Your task to perform on an android device: open chrome and create a bookmark for the current page Image 0: 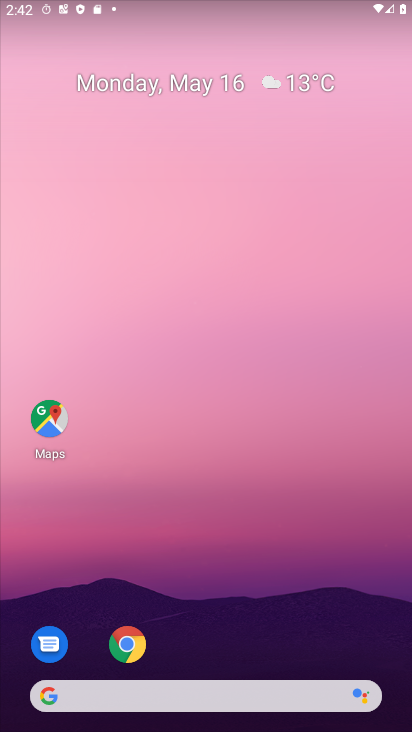
Step 0: drag from (267, 596) to (267, 208)
Your task to perform on an android device: open chrome and create a bookmark for the current page Image 1: 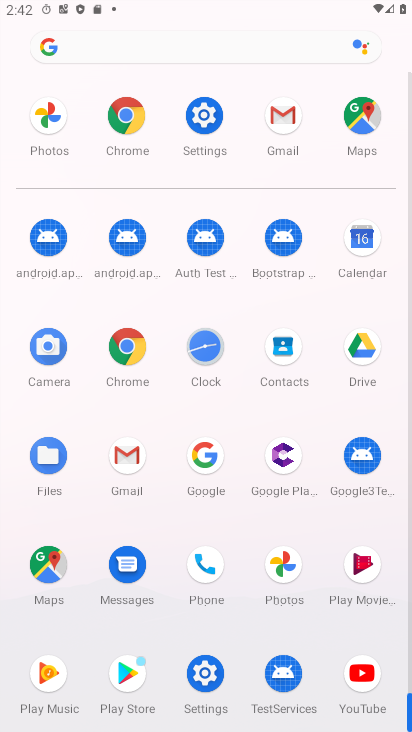
Step 1: click (134, 136)
Your task to perform on an android device: open chrome and create a bookmark for the current page Image 2: 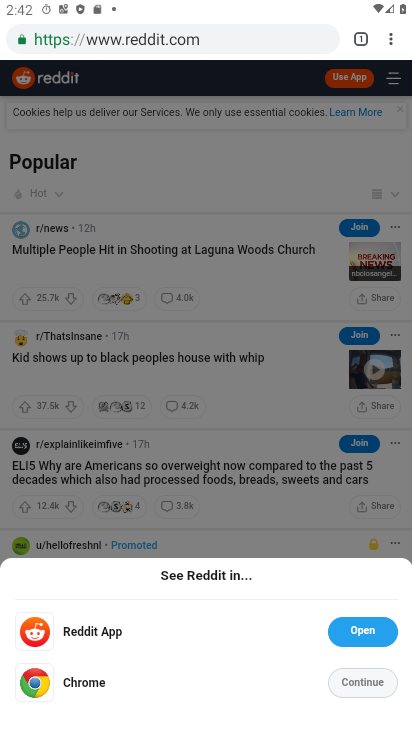
Step 2: drag from (119, 41) to (118, 239)
Your task to perform on an android device: open chrome and create a bookmark for the current page Image 3: 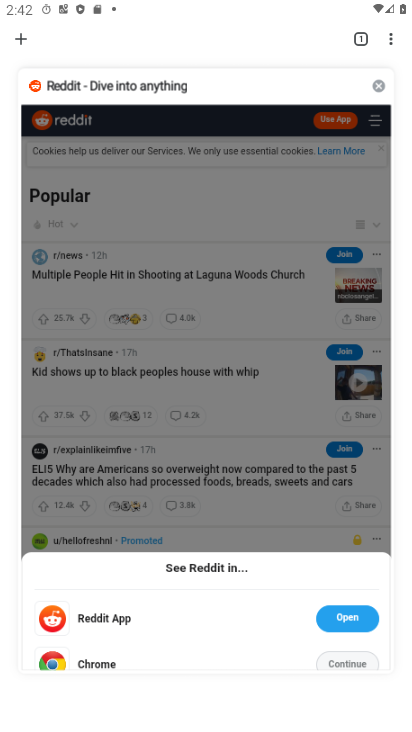
Step 3: click (14, 36)
Your task to perform on an android device: open chrome and create a bookmark for the current page Image 4: 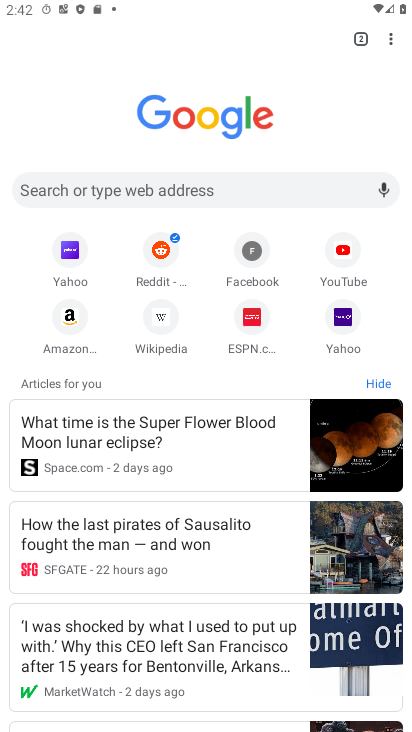
Step 4: click (14, 36)
Your task to perform on an android device: open chrome and create a bookmark for the current page Image 5: 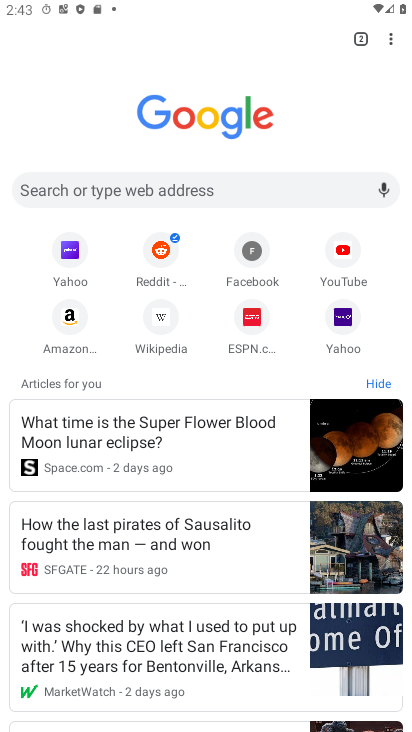
Step 5: click (119, 196)
Your task to perform on an android device: open chrome and create a bookmark for the current page Image 6: 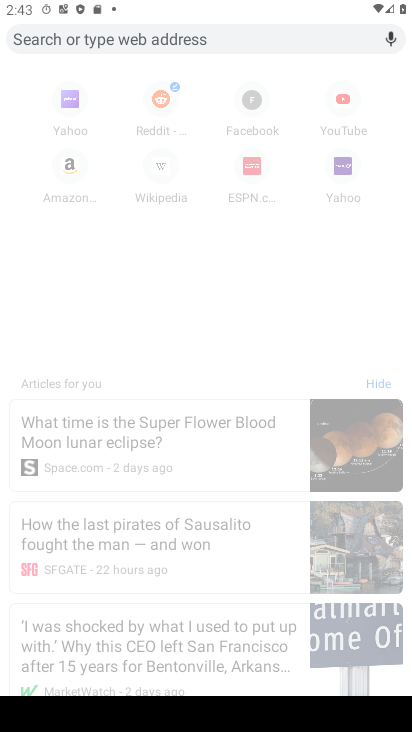
Step 6: type "yuyu"
Your task to perform on an android device: open chrome and create a bookmark for the current page Image 7: 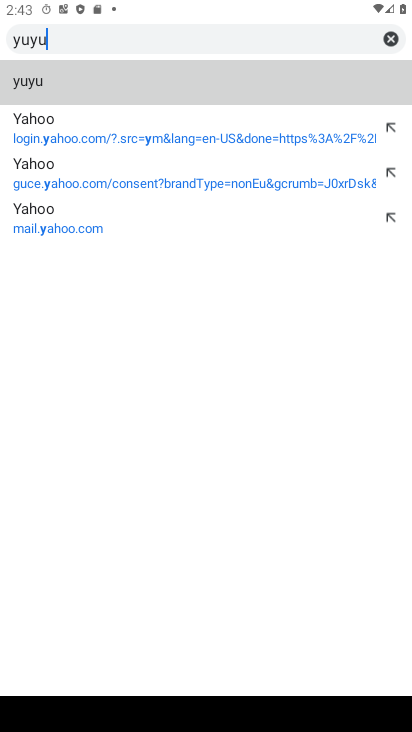
Step 7: type ""
Your task to perform on an android device: open chrome and create a bookmark for the current page Image 8: 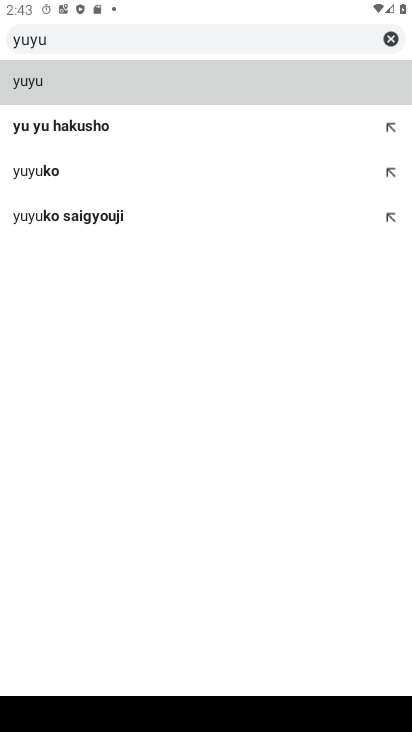
Step 8: click (109, 177)
Your task to perform on an android device: open chrome and create a bookmark for the current page Image 9: 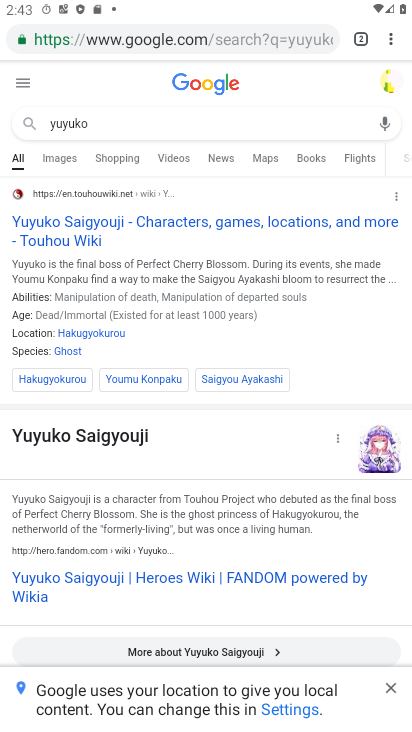
Step 9: click (192, 230)
Your task to perform on an android device: open chrome and create a bookmark for the current page Image 10: 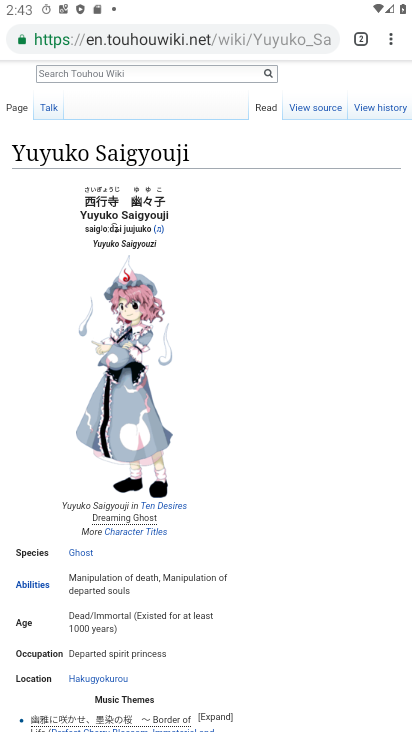
Step 10: click (390, 41)
Your task to perform on an android device: open chrome and create a bookmark for the current page Image 11: 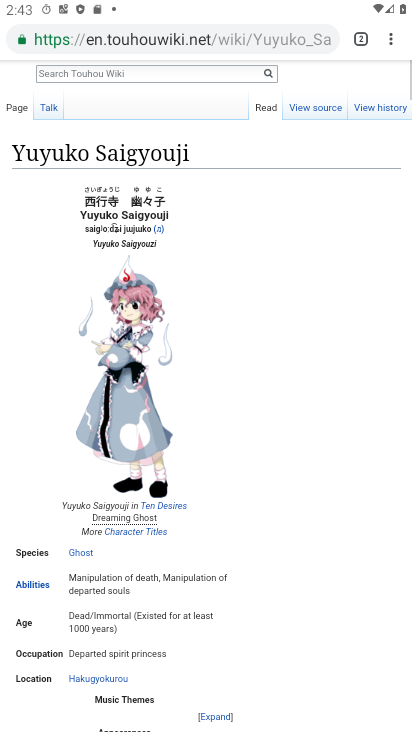
Step 11: click (394, 41)
Your task to perform on an android device: open chrome and create a bookmark for the current page Image 12: 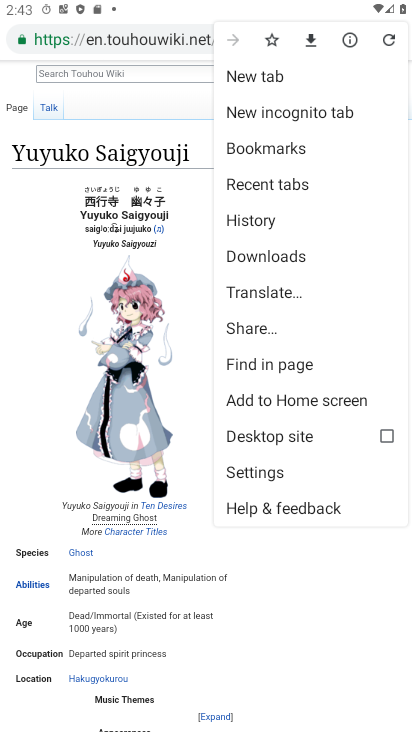
Step 12: click (268, 34)
Your task to perform on an android device: open chrome and create a bookmark for the current page Image 13: 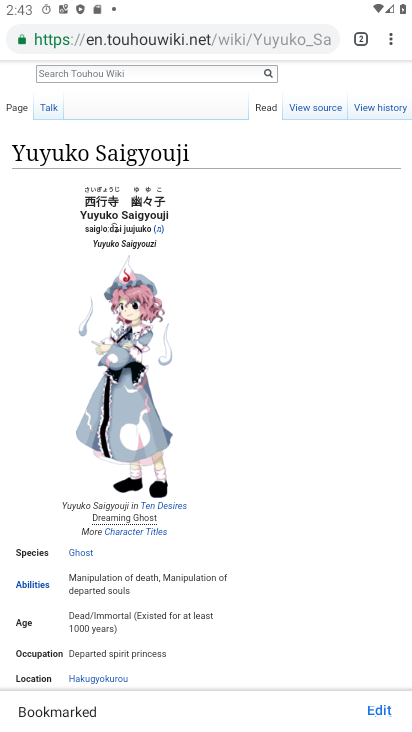
Step 13: task complete